Your task to perform on an android device: turn on airplane mode Image 0: 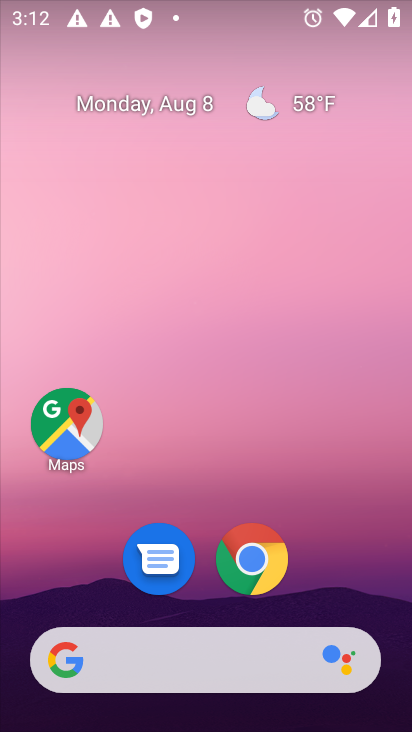
Step 0: drag from (199, 664) to (387, 282)
Your task to perform on an android device: turn on airplane mode Image 1: 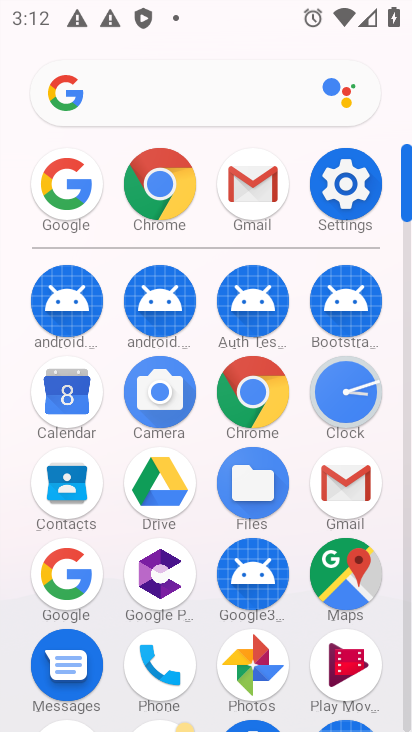
Step 1: click (344, 182)
Your task to perform on an android device: turn on airplane mode Image 2: 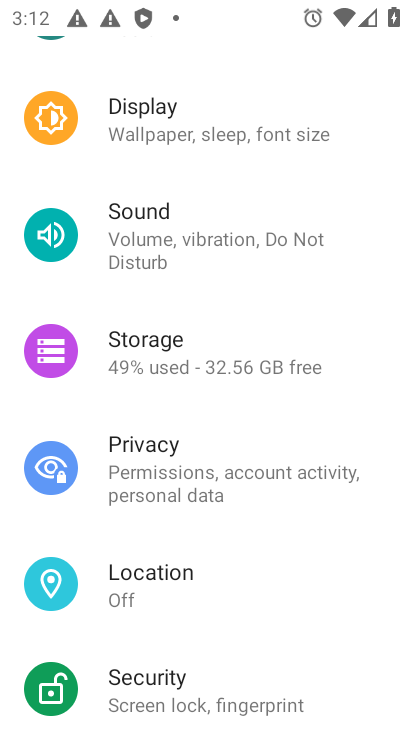
Step 2: drag from (225, 186) to (219, 307)
Your task to perform on an android device: turn on airplane mode Image 3: 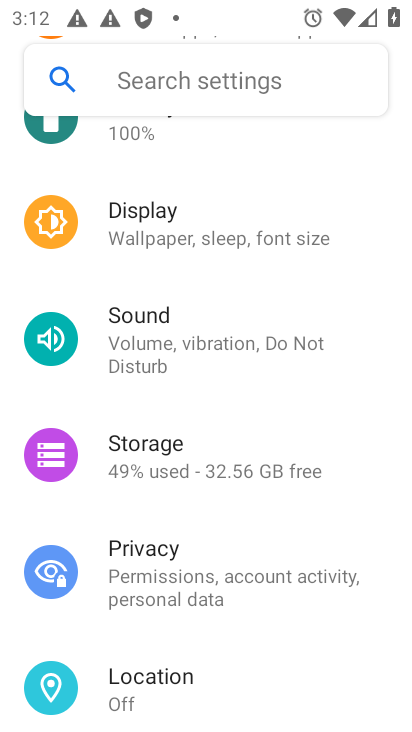
Step 3: drag from (228, 190) to (237, 330)
Your task to perform on an android device: turn on airplane mode Image 4: 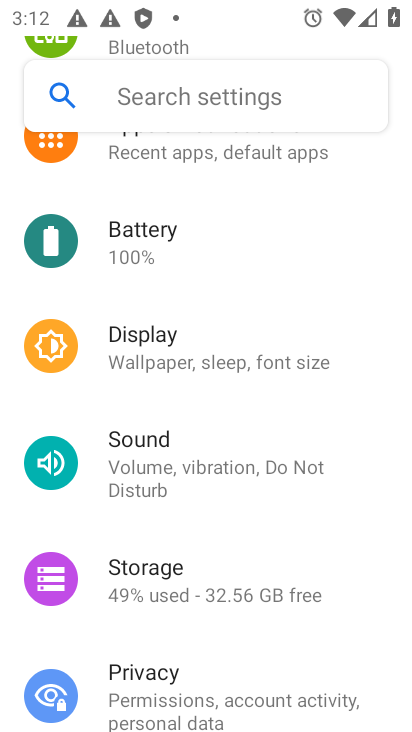
Step 4: drag from (211, 252) to (251, 363)
Your task to perform on an android device: turn on airplane mode Image 5: 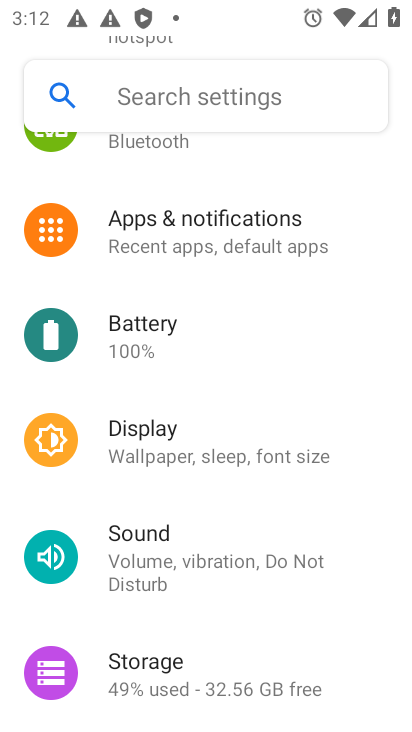
Step 5: drag from (230, 265) to (253, 382)
Your task to perform on an android device: turn on airplane mode Image 6: 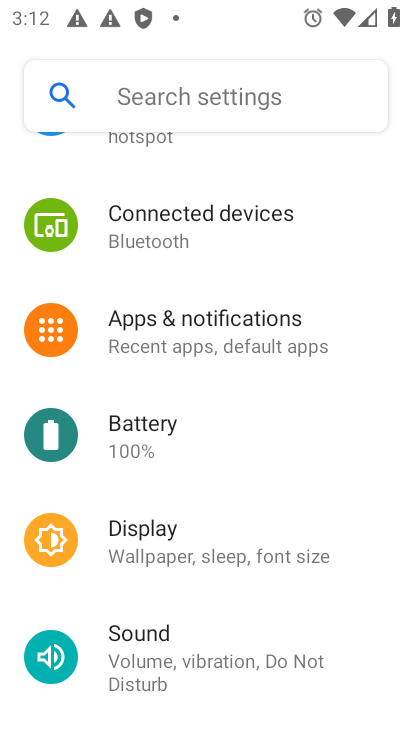
Step 6: drag from (211, 261) to (243, 381)
Your task to perform on an android device: turn on airplane mode Image 7: 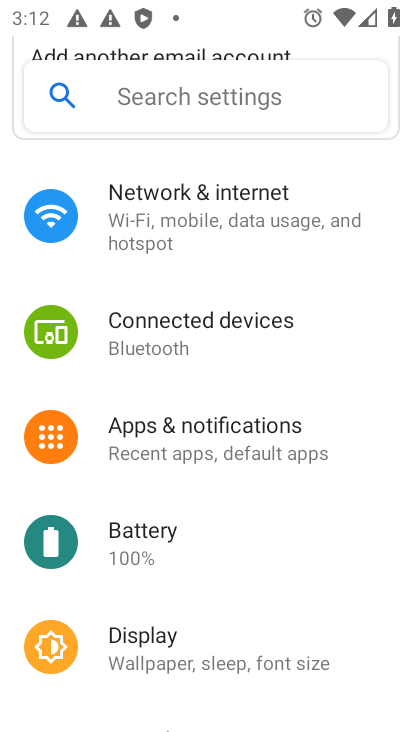
Step 7: click (194, 200)
Your task to perform on an android device: turn on airplane mode Image 8: 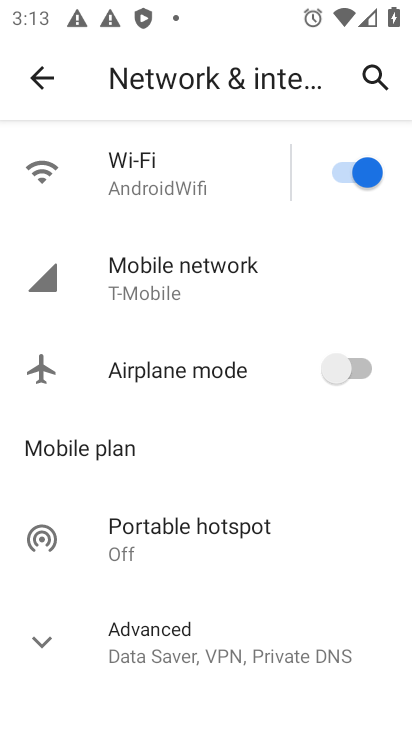
Step 8: click (330, 373)
Your task to perform on an android device: turn on airplane mode Image 9: 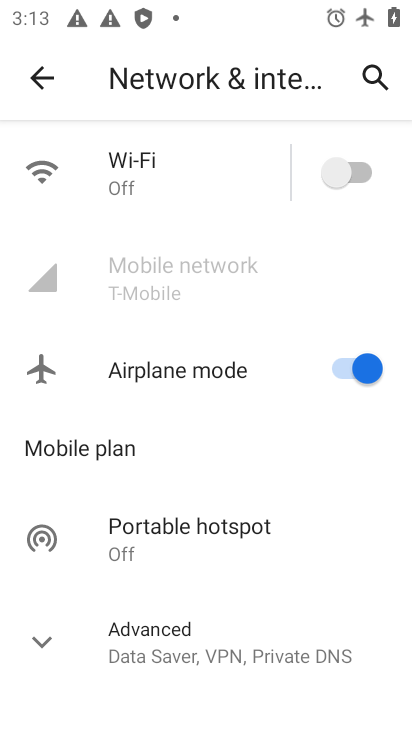
Step 9: task complete